Your task to perform on an android device: open app "Viber Messenger" (install if not already installed) and enter user name: "blameless@icloud.com" and password: "Yoknapatawpha" Image 0: 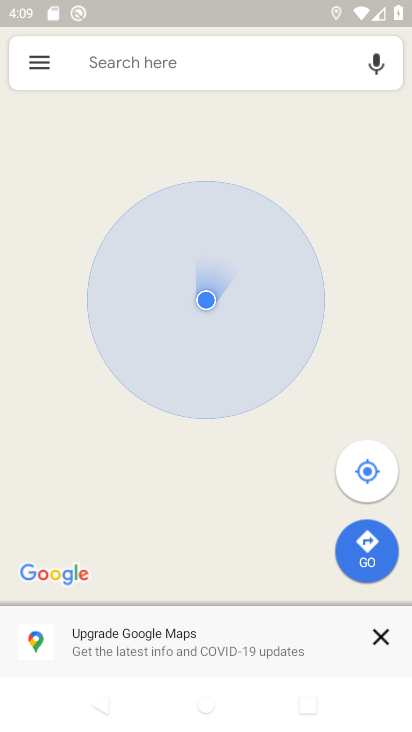
Step 0: press home button
Your task to perform on an android device: open app "Viber Messenger" (install if not already installed) and enter user name: "blameless@icloud.com" and password: "Yoknapatawpha" Image 1: 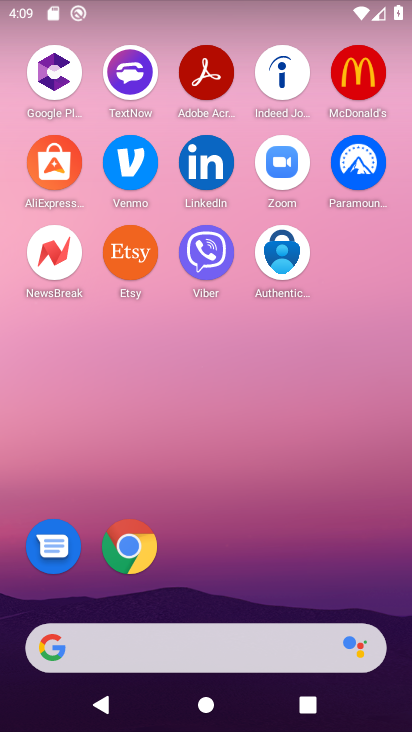
Step 1: drag from (353, 606) to (360, 141)
Your task to perform on an android device: open app "Viber Messenger" (install if not already installed) and enter user name: "blameless@icloud.com" and password: "Yoknapatawpha" Image 2: 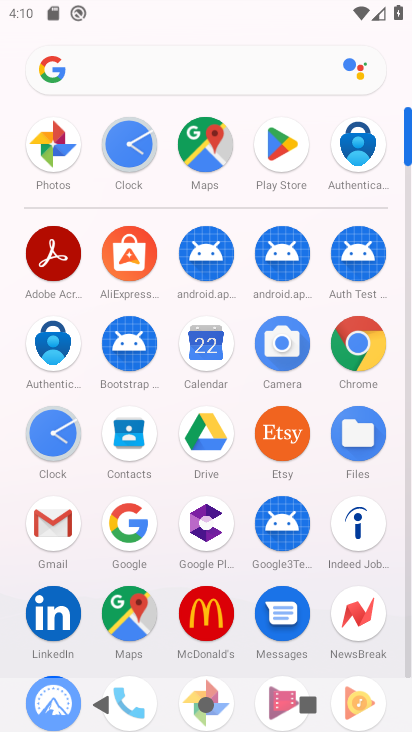
Step 2: drag from (313, 579) to (313, 281)
Your task to perform on an android device: open app "Viber Messenger" (install if not already installed) and enter user name: "blameless@icloud.com" and password: "Yoknapatawpha" Image 3: 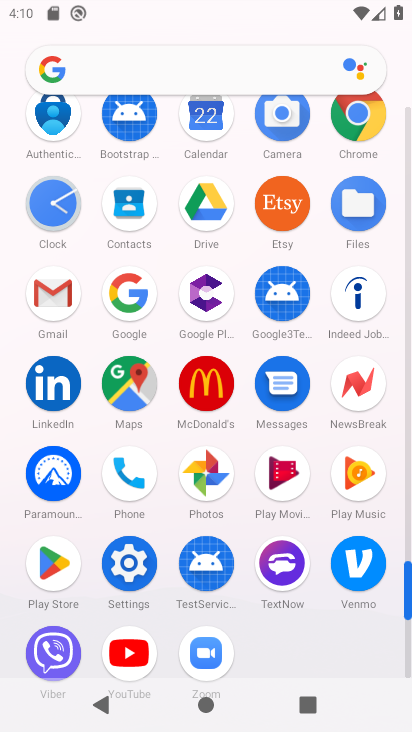
Step 3: click (46, 562)
Your task to perform on an android device: open app "Viber Messenger" (install if not already installed) and enter user name: "blameless@icloud.com" and password: "Yoknapatawpha" Image 4: 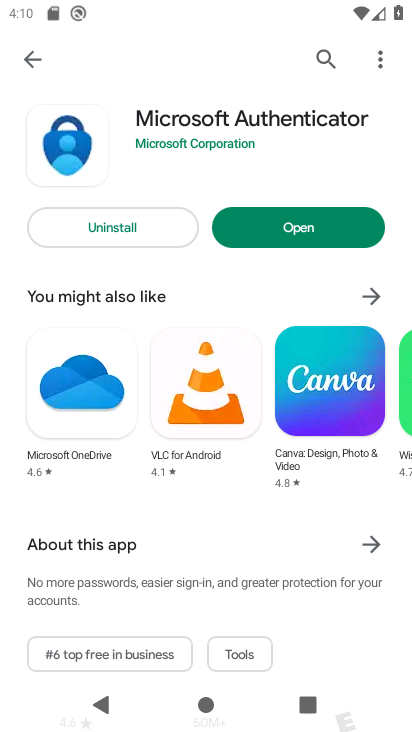
Step 4: click (324, 56)
Your task to perform on an android device: open app "Viber Messenger" (install if not already installed) and enter user name: "blameless@icloud.com" and password: "Yoknapatawpha" Image 5: 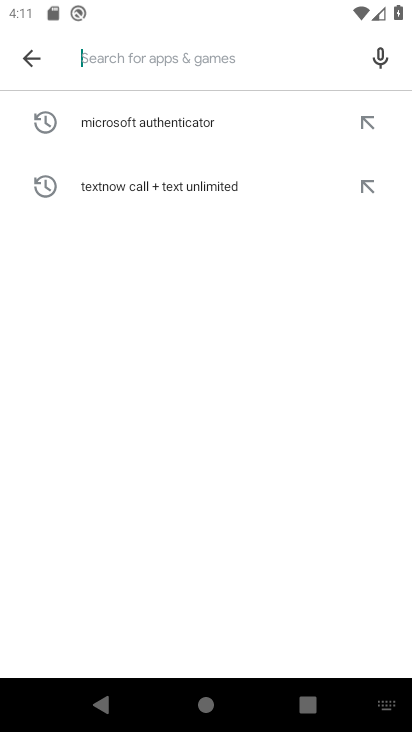
Step 5: type "Viber Messenger"
Your task to perform on an android device: open app "Viber Messenger" (install if not already installed) and enter user name: "blameless@icloud.com" and password: "Yoknapatawpha" Image 6: 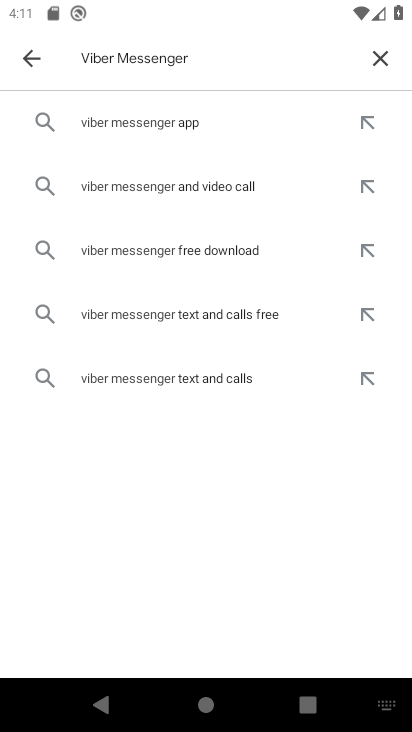
Step 6: click (129, 120)
Your task to perform on an android device: open app "Viber Messenger" (install if not already installed) and enter user name: "blameless@icloud.com" and password: "Yoknapatawpha" Image 7: 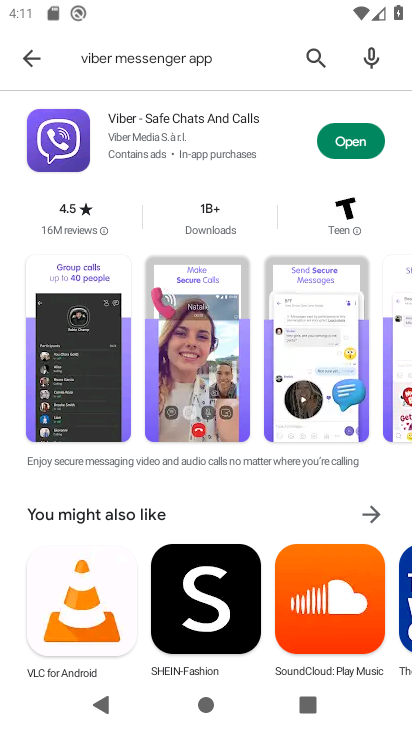
Step 7: click (346, 140)
Your task to perform on an android device: open app "Viber Messenger" (install if not already installed) and enter user name: "blameless@icloud.com" and password: "Yoknapatawpha" Image 8: 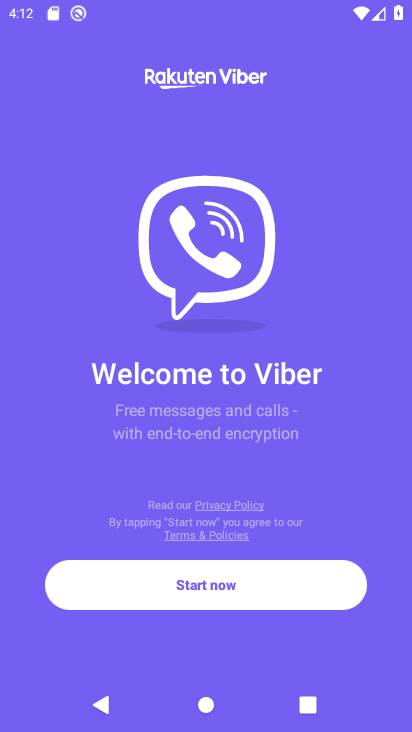
Step 8: click (200, 583)
Your task to perform on an android device: open app "Viber Messenger" (install if not already installed) and enter user name: "blameless@icloud.com" and password: "Yoknapatawpha" Image 9: 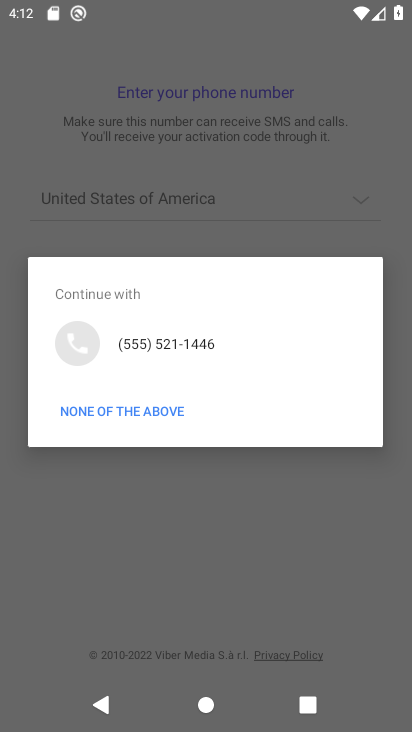
Step 9: click (218, 526)
Your task to perform on an android device: open app "Viber Messenger" (install if not already installed) and enter user name: "blameless@icloud.com" and password: "Yoknapatawpha" Image 10: 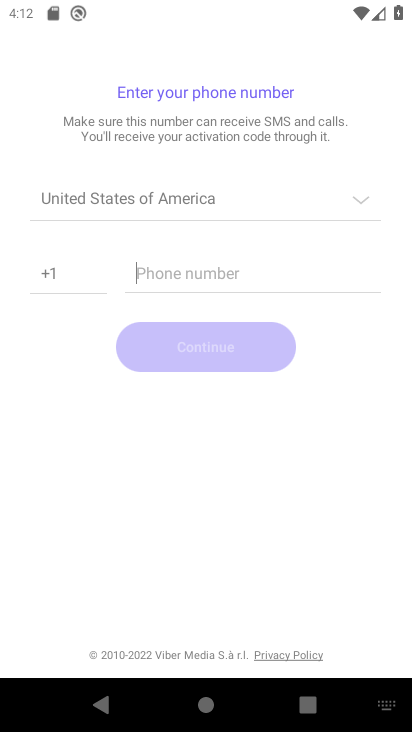
Step 10: task complete